Your task to perform on an android device: turn off smart reply in the gmail app Image 0: 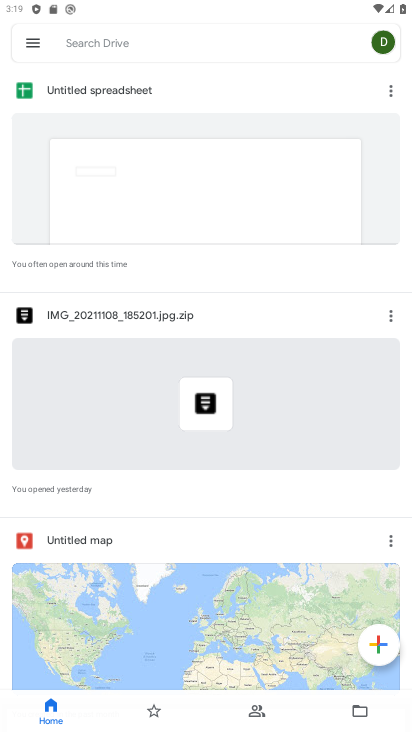
Step 0: click (407, 1)
Your task to perform on an android device: turn off smart reply in the gmail app Image 1: 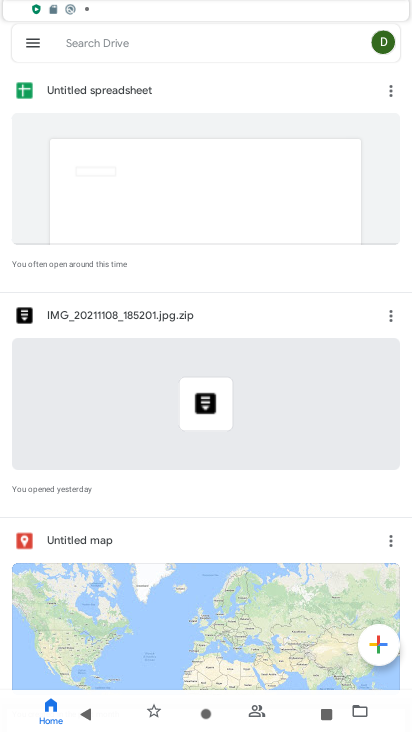
Step 1: press home button
Your task to perform on an android device: turn off smart reply in the gmail app Image 2: 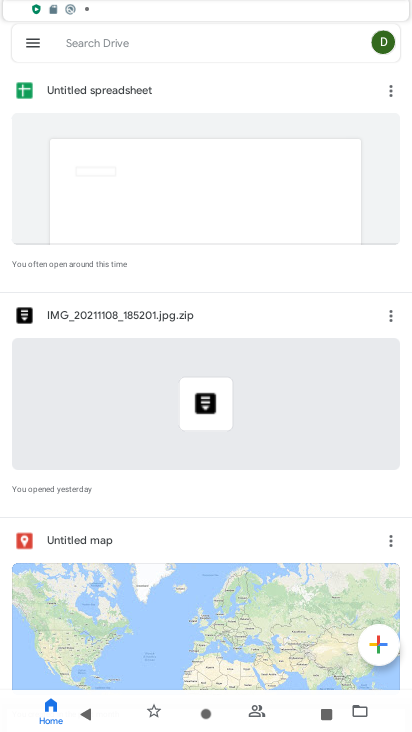
Step 2: drag from (407, 0) to (386, 522)
Your task to perform on an android device: turn off smart reply in the gmail app Image 3: 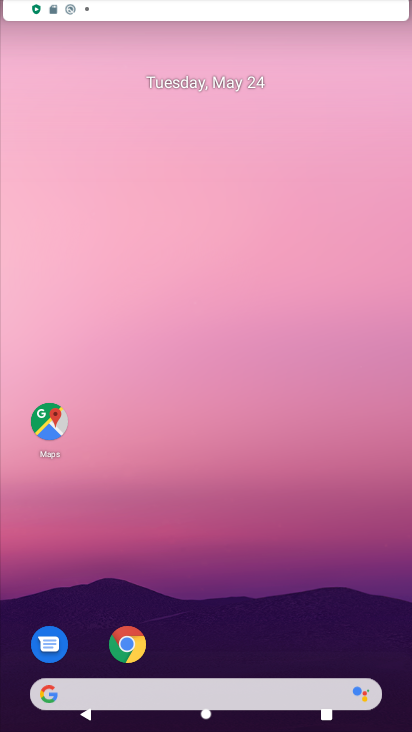
Step 3: drag from (180, 673) to (381, 126)
Your task to perform on an android device: turn off smart reply in the gmail app Image 4: 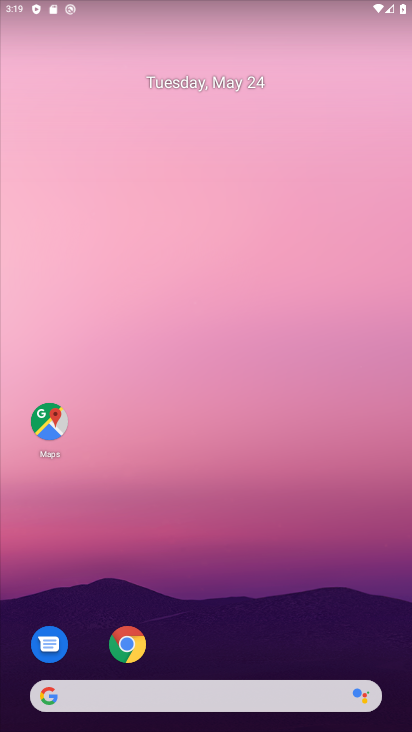
Step 4: drag from (181, 666) to (369, 123)
Your task to perform on an android device: turn off smart reply in the gmail app Image 5: 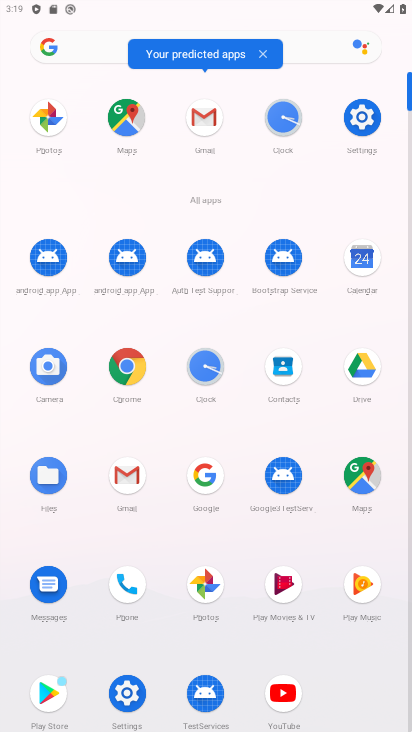
Step 5: click (134, 482)
Your task to perform on an android device: turn off smart reply in the gmail app Image 6: 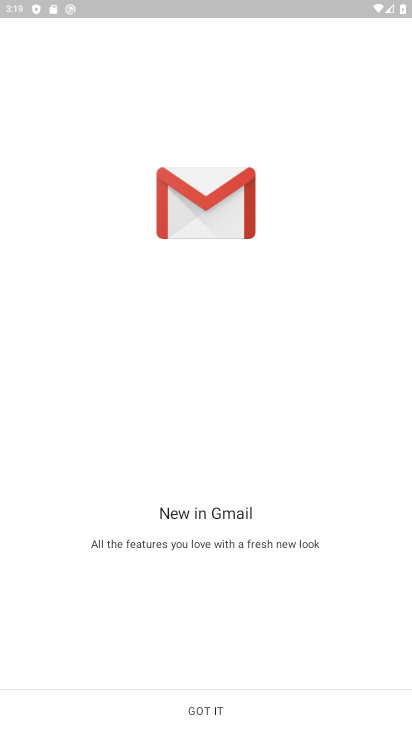
Step 6: click (212, 703)
Your task to perform on an android device: turn off smart reply in the gmail app Image 7: 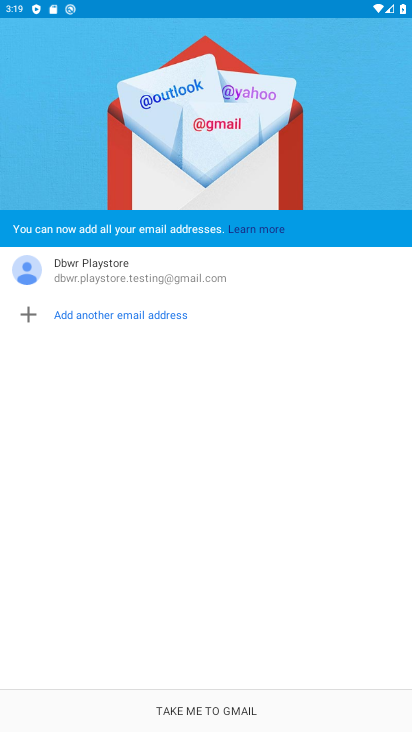
Step 7: click (232, 705)
Your task to perform on an android device: turn off smart reply in the gmail app Image 8: 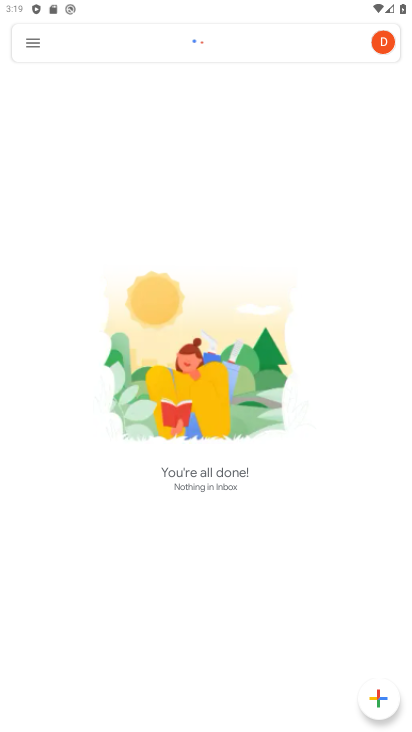
Step 8: click (26, 43)
Your task to perform on an android device: turn off smart reply in the gmail app Image 9: 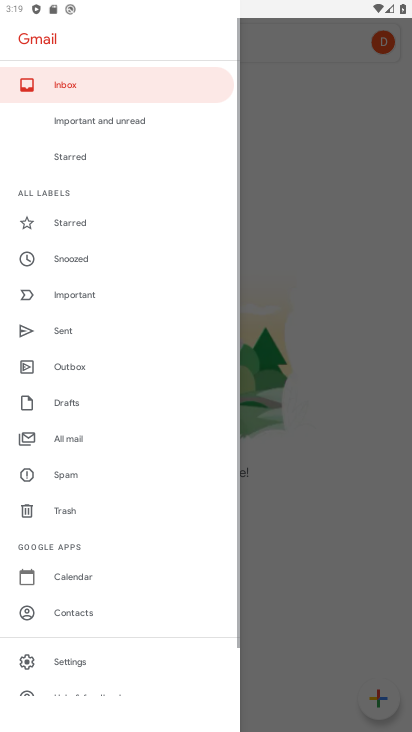
Step 9: drag from (89, 660) to (197, 260)
Your task to perform on an android device: turn off smart reply in the gmail app Image 10: 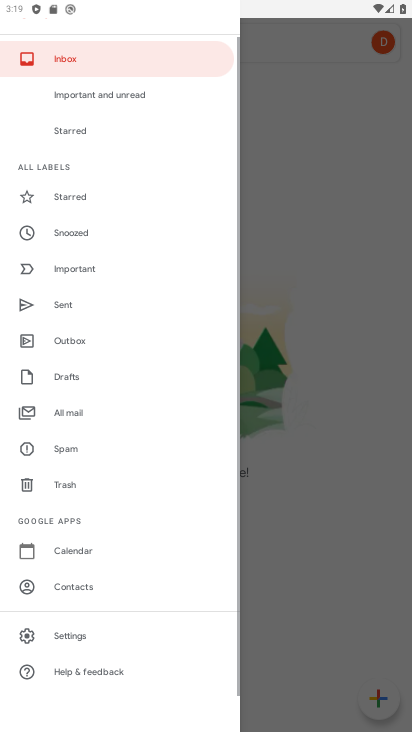
Step 10: click (89, 637)
Your task to perform on an android device: turn off smart reply in the gmail app Image 11: 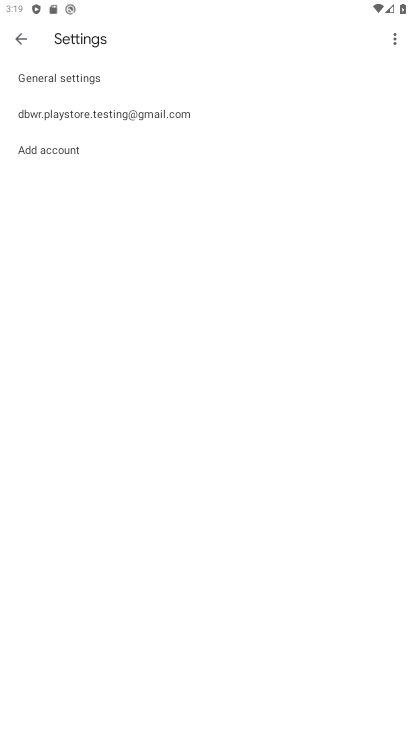
Step 11: click (244, 103)
Your task to perform on an android device: turn off smart reply in the gmail app Image 12: 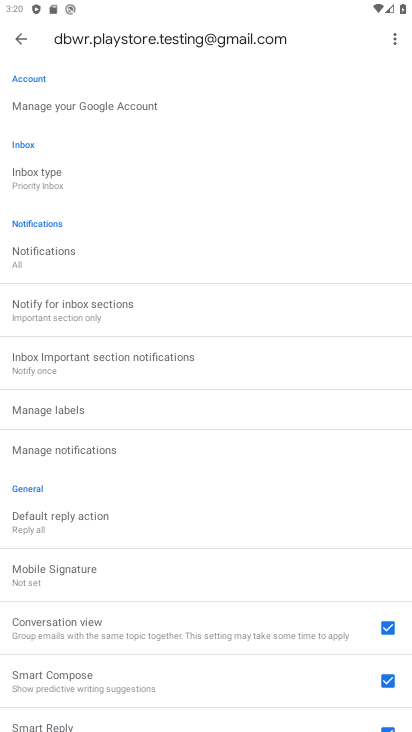
Step 12: drag from (261, 668) to (365, 251)
Your task to perform on an android device: turn off smart reply in the gmail app Image 13: 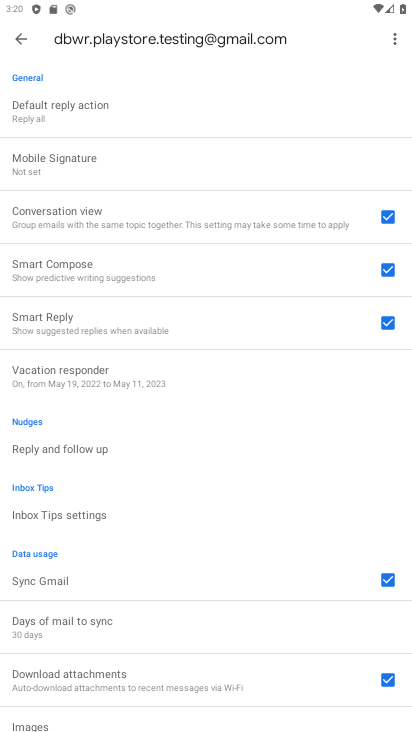
Step 13: click (399, 322)
Your task to perform on an android device: turn off smart reply in the gmail app Image 14: 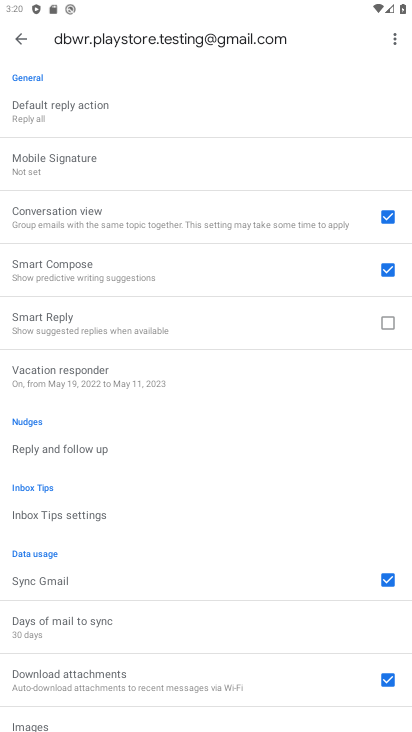
Step 14: task complete